Your task to perform on an android device: Go to Reddit.com Image 0: 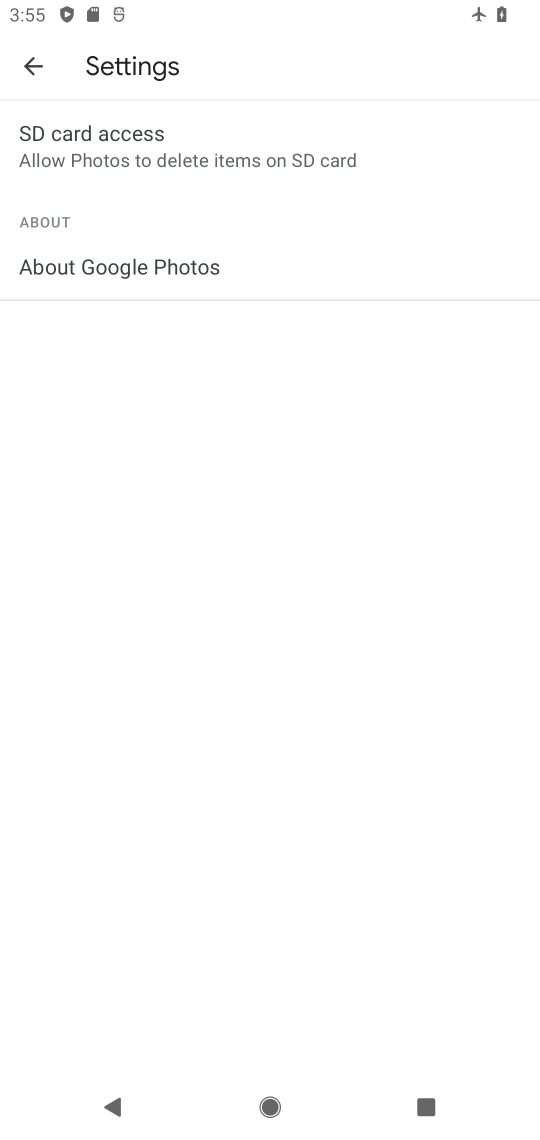
Step 0: press home button
Your task to perform on an android device: Go to Reddit.com Image 1: 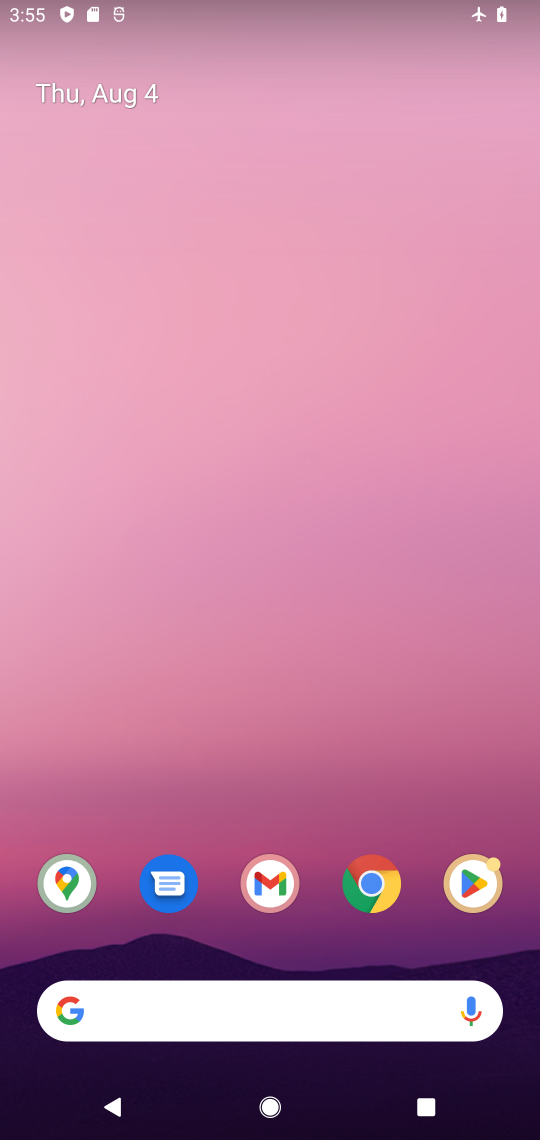
Step 1: drag from (430, 872) to (220, 48)
Your task to perform on an android device: Go to Reddit.com Image 2: 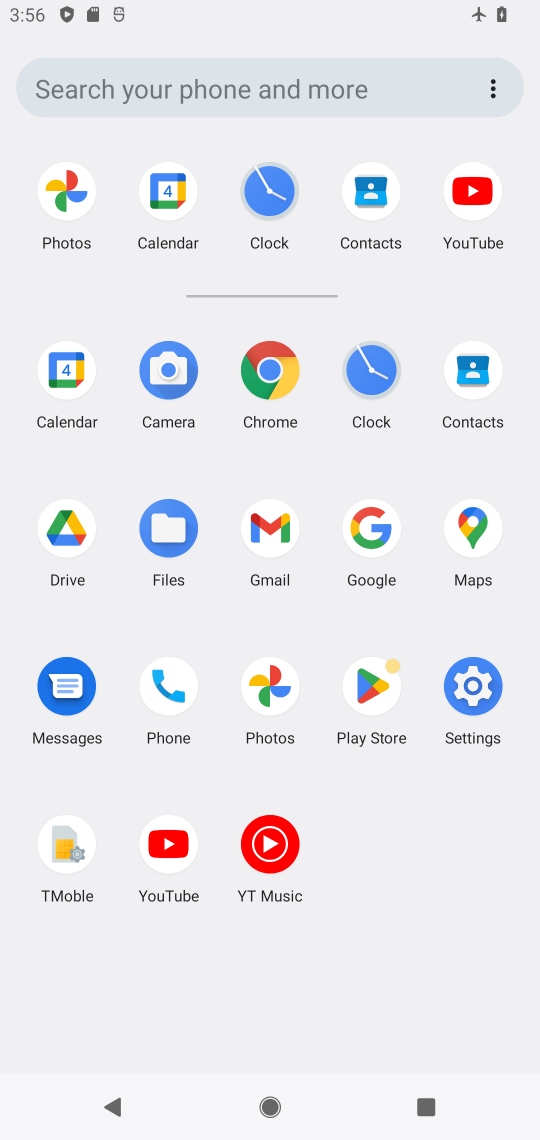
Step 2: click (352, 537)
Your task to perform on an android device: Go to Reddit.com Image 3: 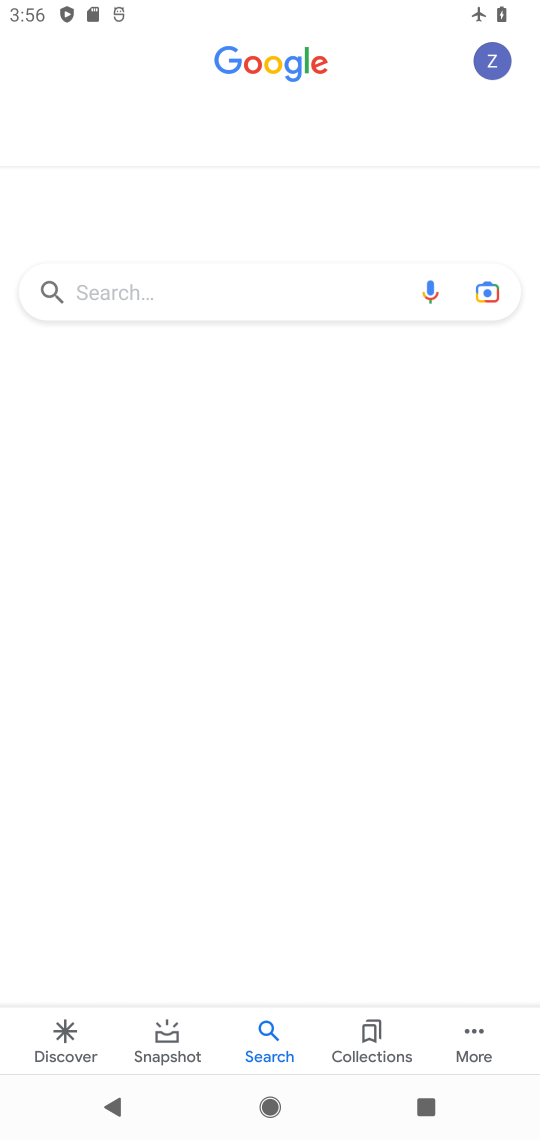
Step 3: click (169, 308)
Your task to perform on an android device: Go to Reddit.com Image 4: 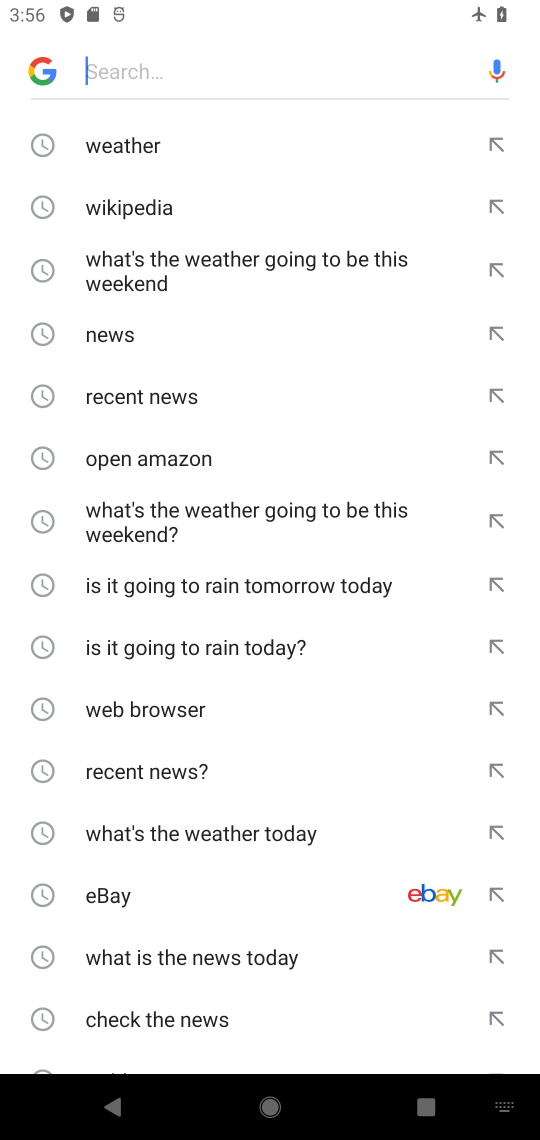
Step 4: type "Reddit.com"
Your task to perform on an android device: Go to Reddit.com Image 5: 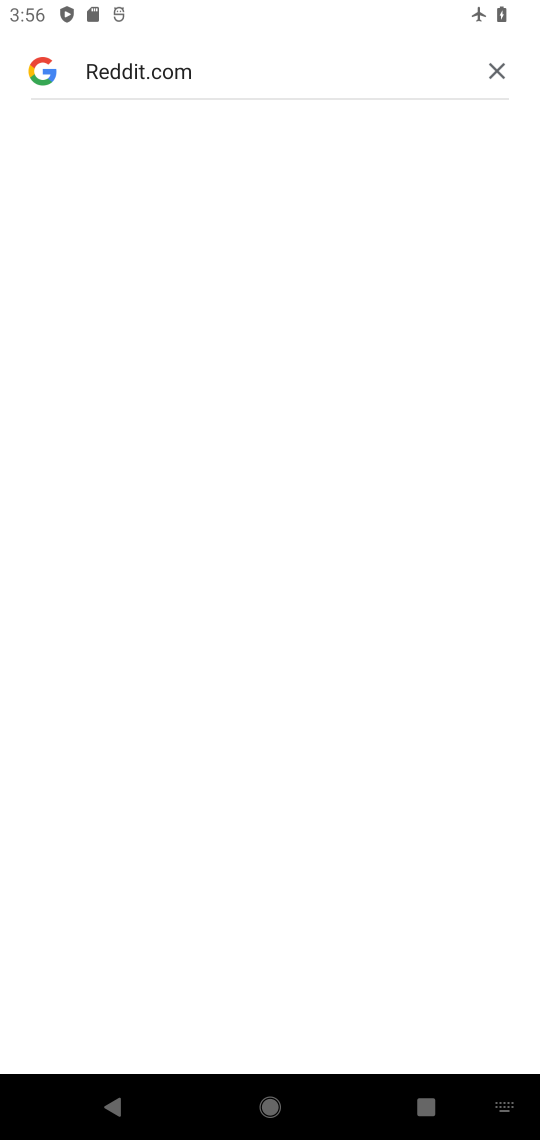
Step 5: task complete